Your task to perform on an android device: Open the Play Movies app and select the watchlist tab. Image 0: 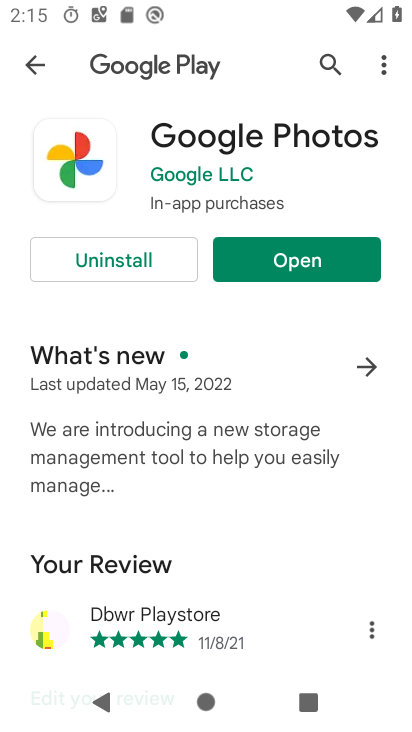
Step 0: press home button
Your task to perform on an android device: Open the Play Movies app and select the watchlist tab. Image 1: 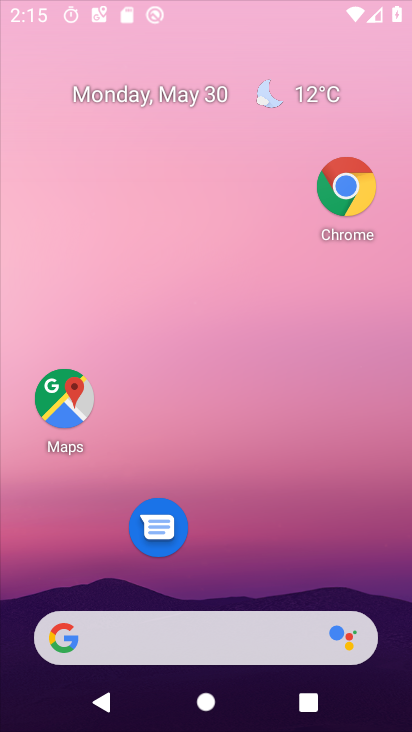
Step 1: drag from (227, 590) to (308, 14)
Your task to perform on an android device: Open the Play Movies app and select the watchlist tab. Image 2: 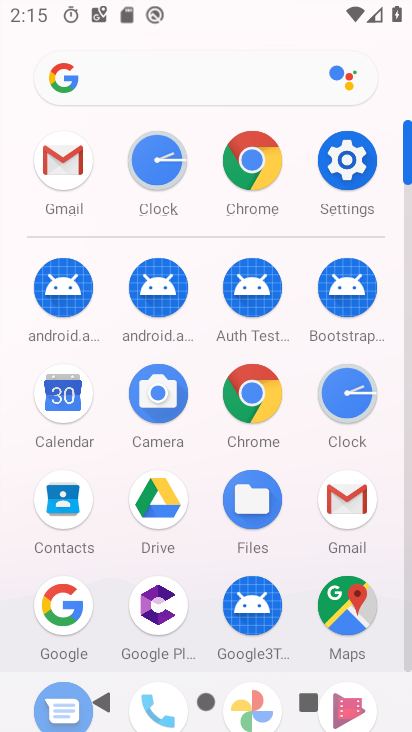
Step 2: drag from (318, 390) to (339, 226)
Your task to perform on an android device: Open the Play Movies app and select the watchlist tab. Image 3: 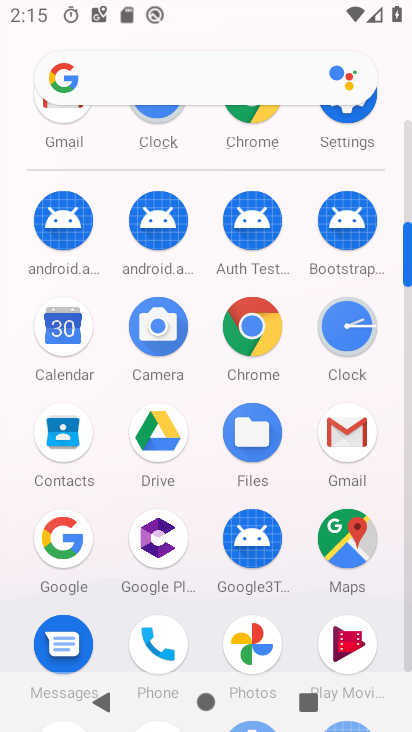
Step 3: click (352, 621)
Your task to perform on an android device: Open the Play Movies app and select the watchlist tab. Image 4: 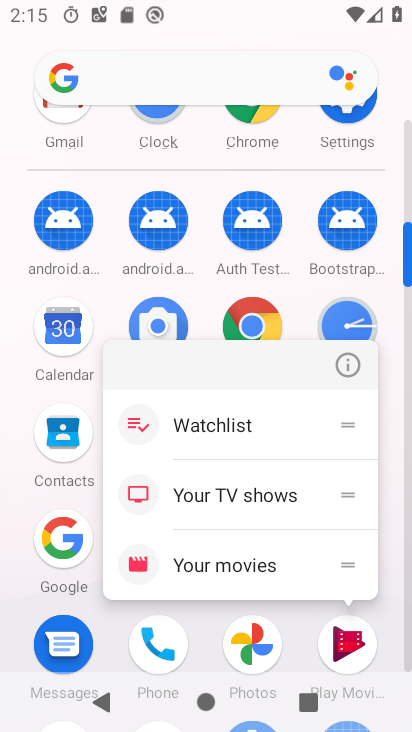
Step 4: click (342, 362)
Your task to perform on an android device: Open the Play Movies app and select the watchlist tab. Image 5: 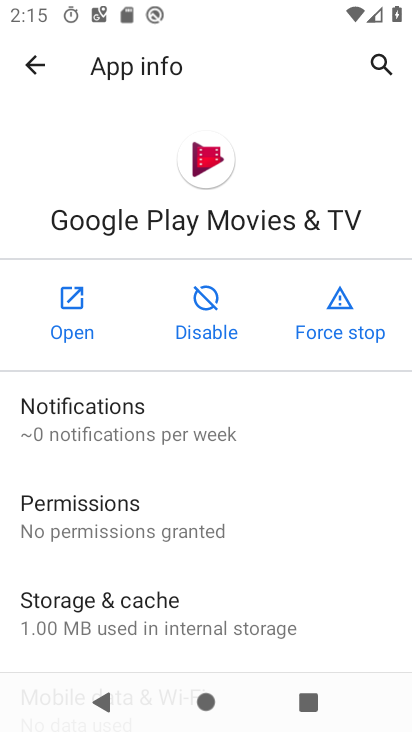
Step 5: click (97, 315)
Your task to perform on an android device: Open the Play Movies app and select the watchlist tab. Image 6: 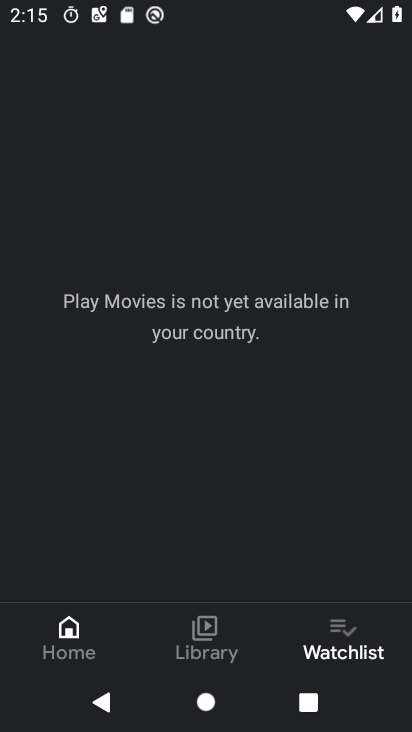
Step 6: drag from (304, 599) to (322, 280)
Your task to perform on an android device: Open the Play Movies app and select the watchlist tab. Image 7: 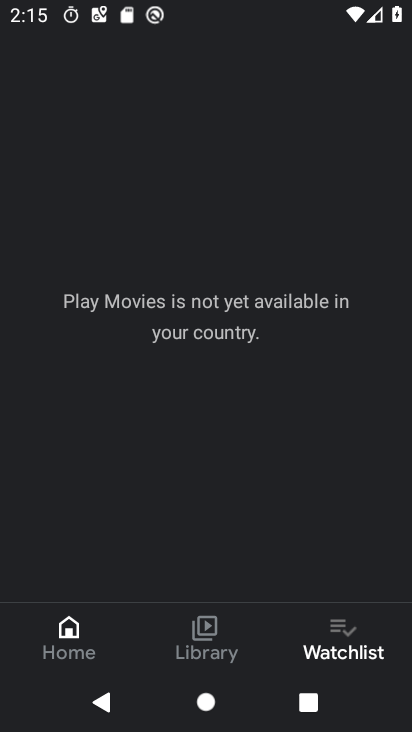
Step 7: drag from (131, 507) to (245, 240)
Your task to perform on an android device: Open the Play Movies app and select the watchlist tab. Image 8: 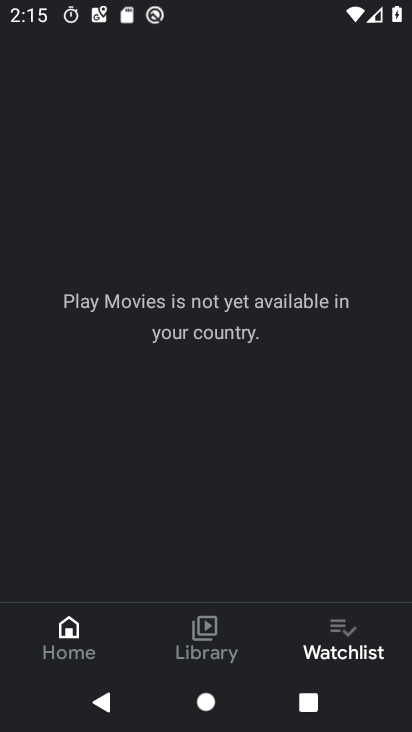
Step 8: click (357, 599)
Your task to perform on an android device: Open the Play Movies app and select the watchlist tab. Image 9: 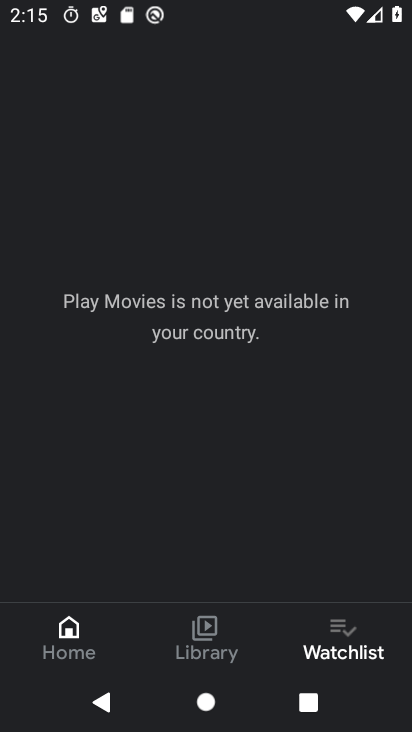
Step 9: click (355, 605)
Your task to perform on an android device: Open the Play Movies app and select the watchlist tab. Image 10: 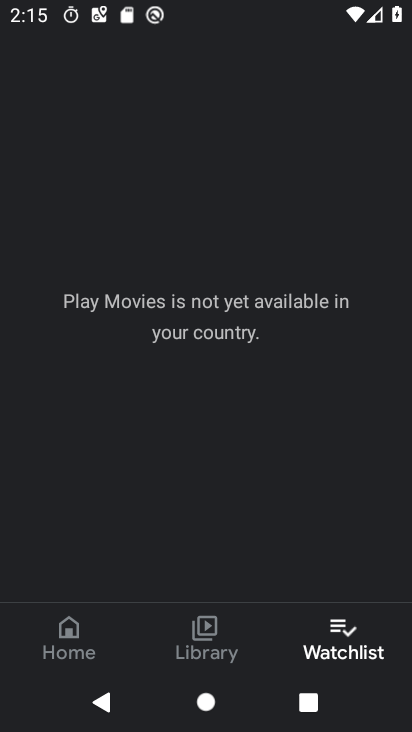
Step 10: click (365, 642)
Your task to perform on an android device: Open the Play Movies app and select the watchlist tab. Image 11: 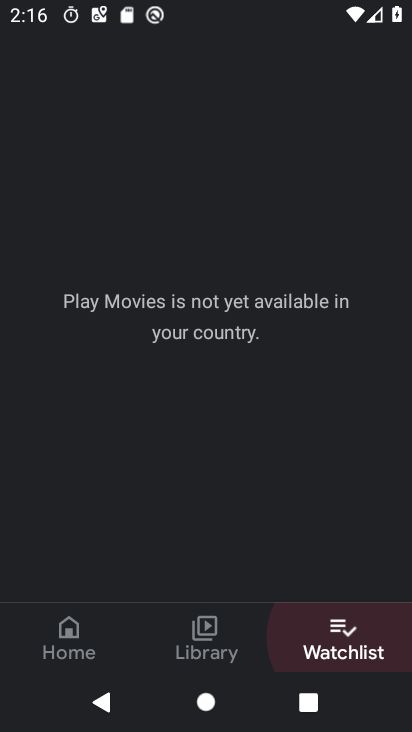
Step 11: task complete